Your task to perform on an android device: turn on the 12-hour format for clock Image 0: 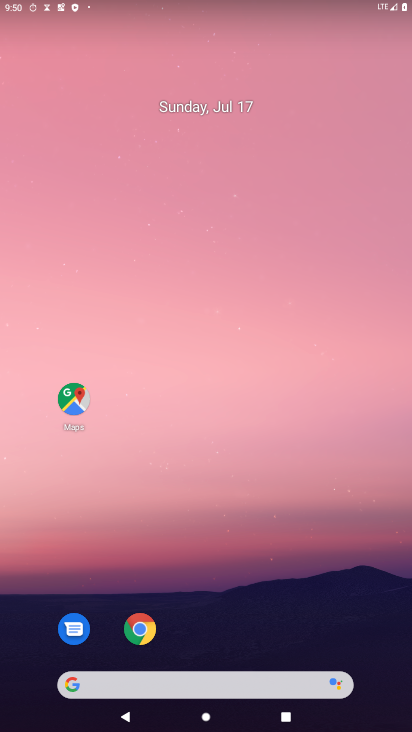
Step 0: drag from (221, 690) to (200, 67)
Your task to perform on an android device: turn on the 12-hour format for clock Image 1: 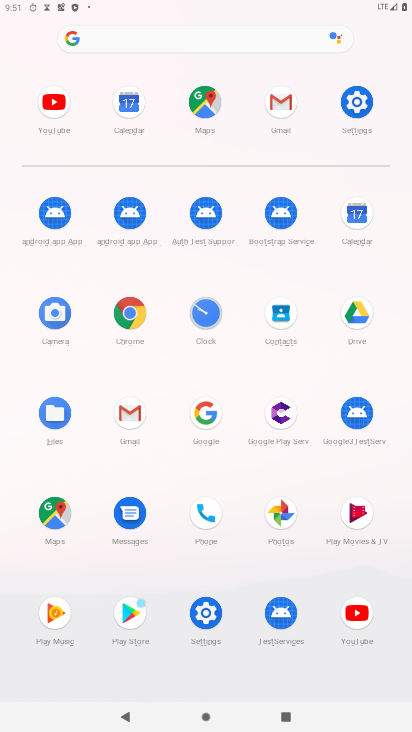
Step 1: click (205, 308)
Your task to perform on an android device: turn on the 12-hour format for clock Image 2: 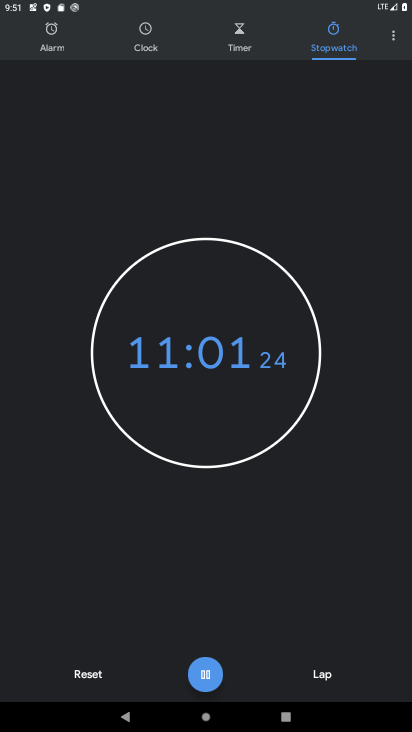
Step 2: click (391, 44)
Your task to perform on an android device: turn on the 12-hour format for clock Image 3: 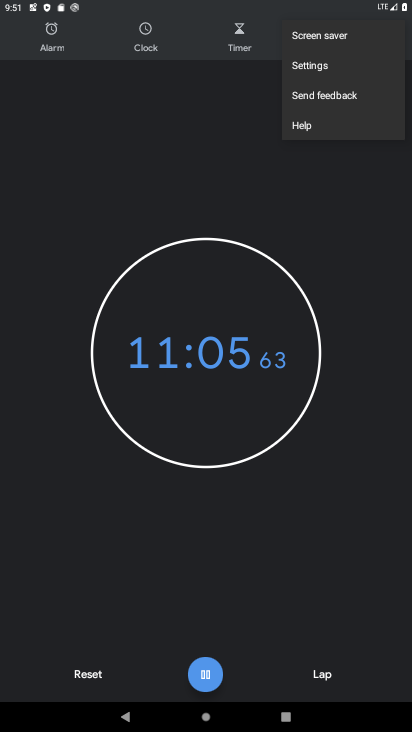
Step 3: click (311, 64)
Your task to perform on an android device: turn on the 12-hour format for clock Image 4: 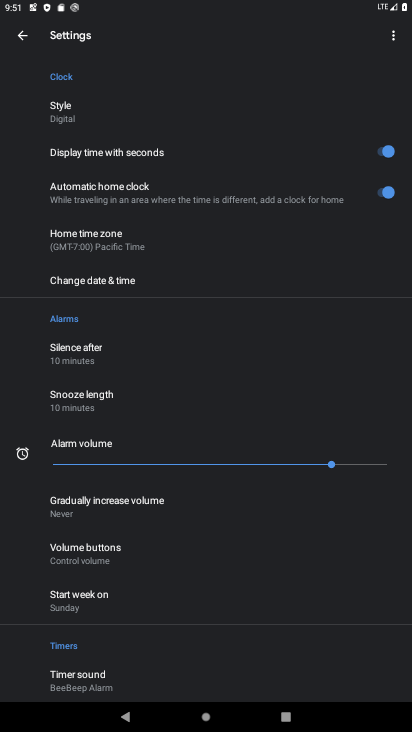
Step 4: click (97, 283)
Your task to perform on an android device: turn on the 12-hour format for clock Image 5: 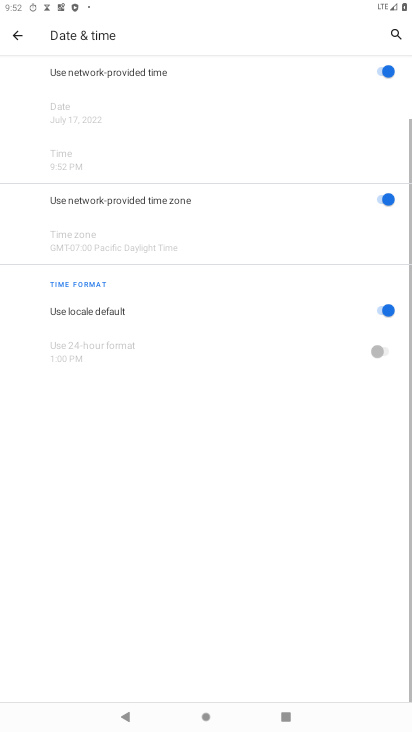
Step 5: task complete